Your task to perform on an android device: toggle wifi Image 0: 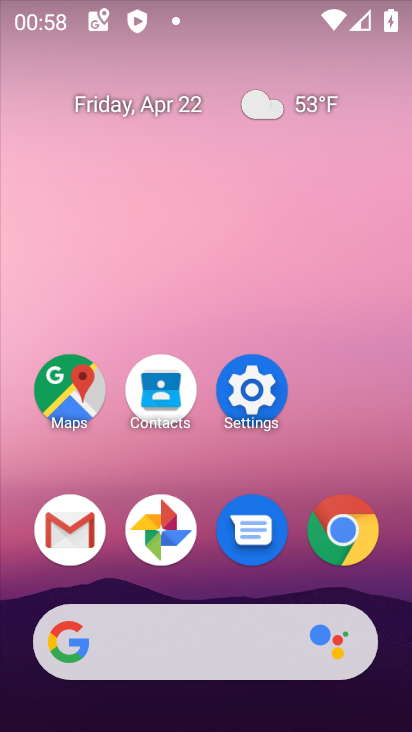
Step 0: click (249, 396)
Your task to perform on an android device: toggle wifi Image 1: 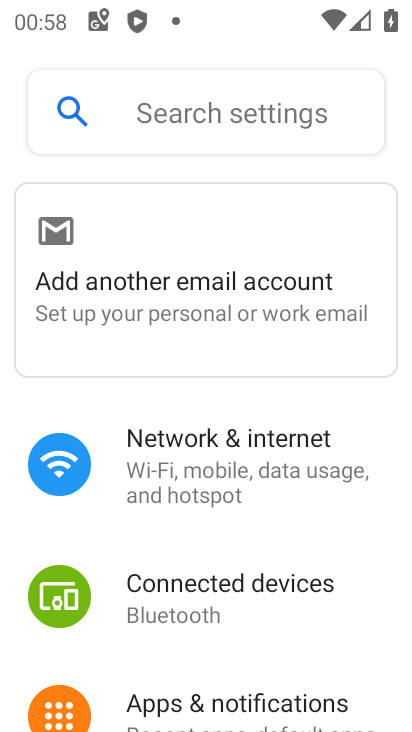
Step 1: click (205, 448)
Your task to perform on an android device: toggle wifi Image 2: 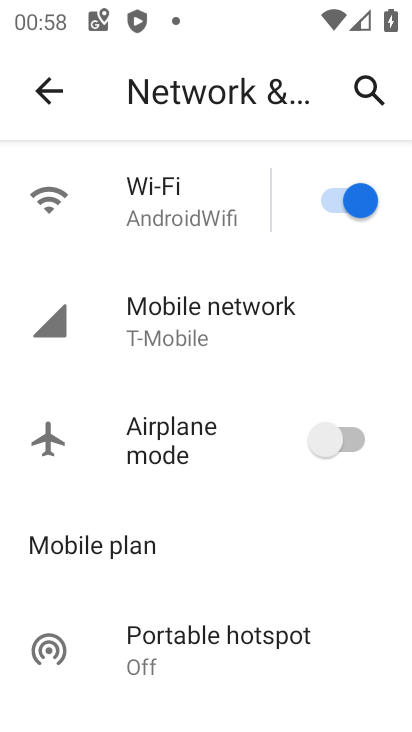
Step 2: click (343, 198)
Your task to perform on an android device: toggle wifi Image 3: 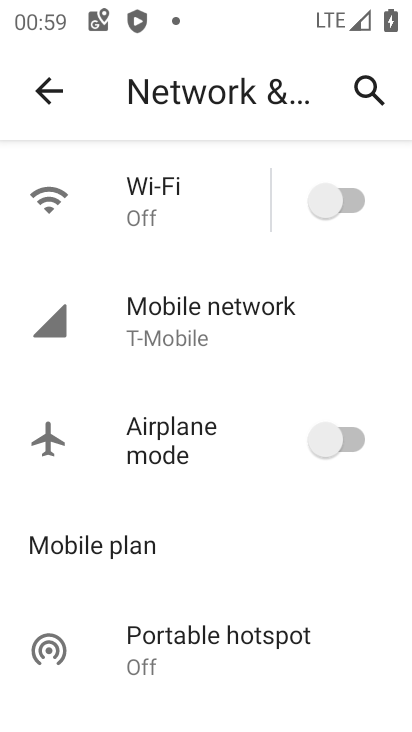
Step 3: task complete